Your task to perform on an android device: Open internet settings Image 0: 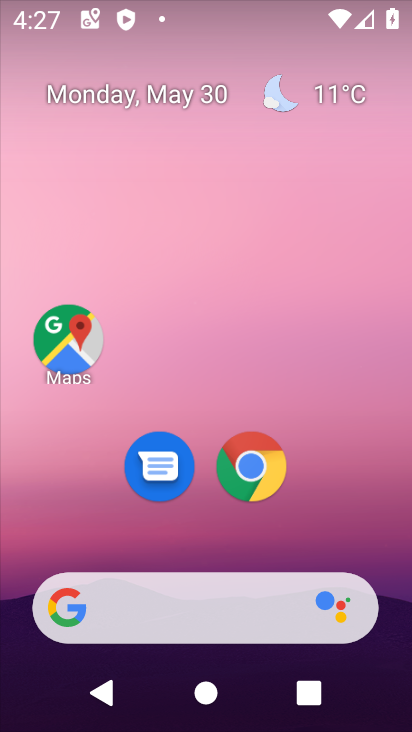
Step 0: drag from (336, 527) to (319, 71)
Your task to perform on an android device: Open internet settings Image 1: 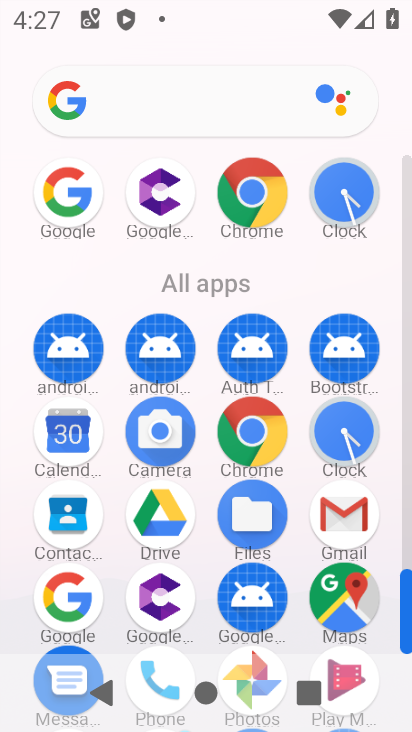
Step 1: drag from (305, 574) to (347, 179)
Your task to perform on an android device: Open internet settings Image 2: 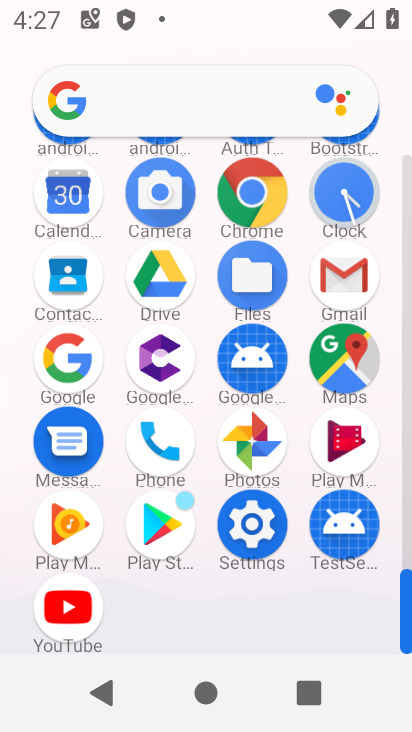
Step 2: click (258, 531)
Your task to perform on an android device: Open internet settings Image 3: 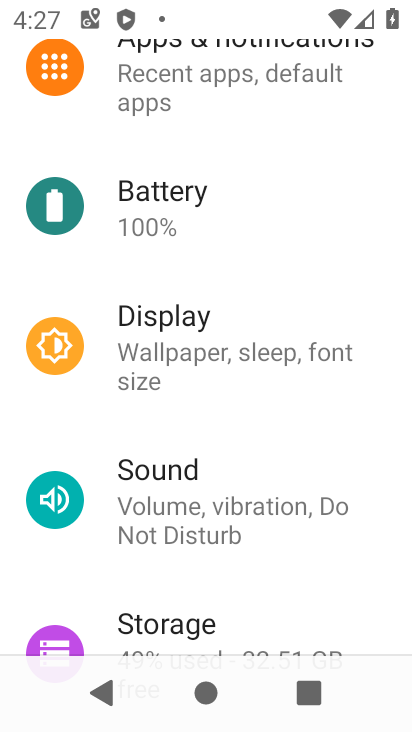
Step 3: drag from (188, 242) to (183, 646)
Your task to perform on an android device: Open internet settings Image 4: 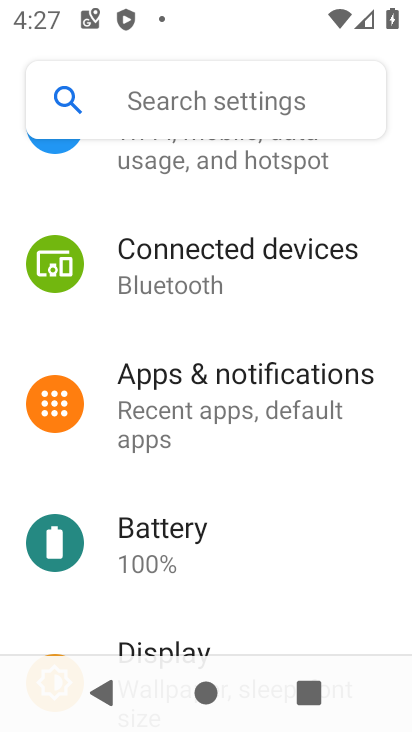
Step 4: drag from (121, 203) to (343, 658)
Your task to perform on an android device: Open internet settings Image 5: 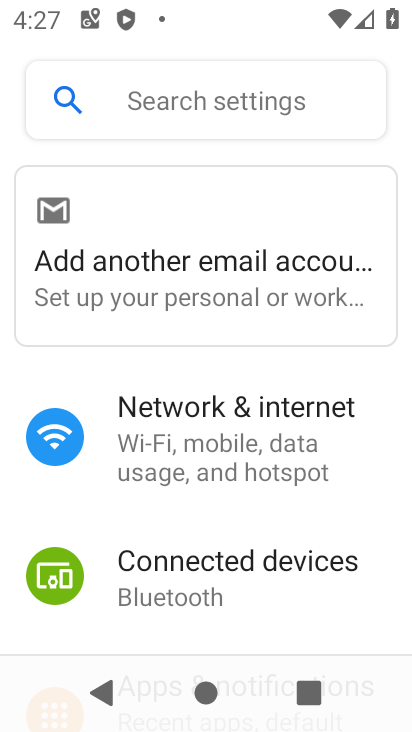
Step 5: click (233, 441)
Your task to perform on an android device: Open internet settings Image 6: 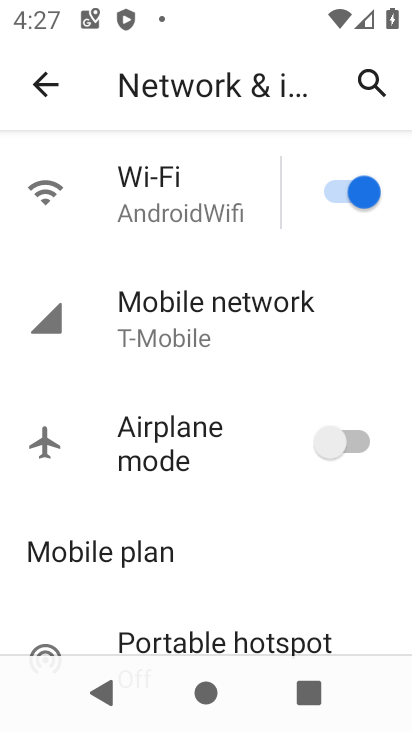
Step 6: drag from (236, 497) to (267, 177)
Your task to perform on an android device: Open internet settings Image 7: 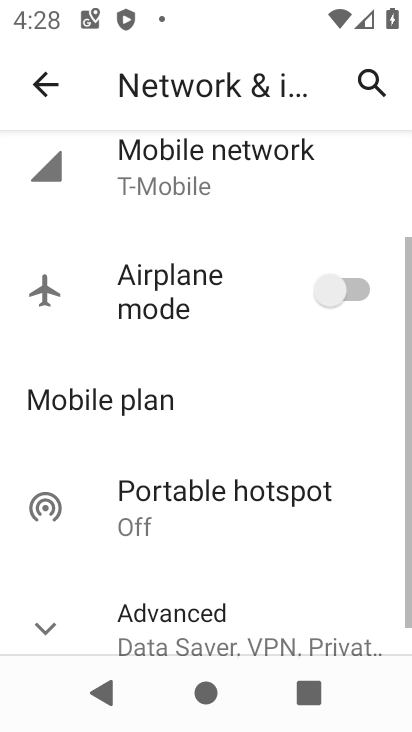
Step 7: drag from (194, 484) to (291, 135)
Your task to perform on an android device: Open internet settings Image 8: 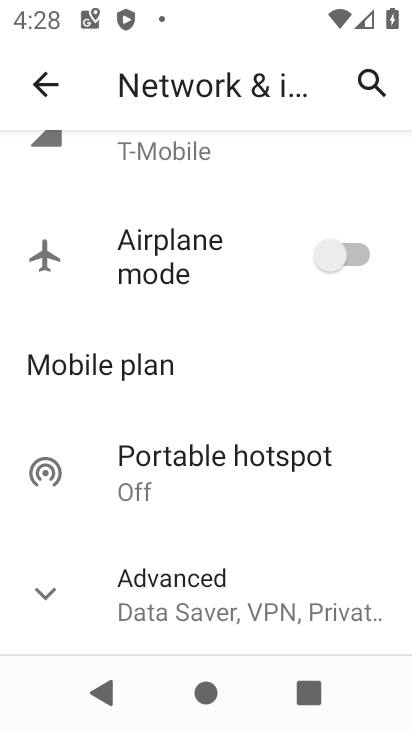
Step 8: click (175, 576)
Your task to perform on an android device: Open internet settings Image 9: 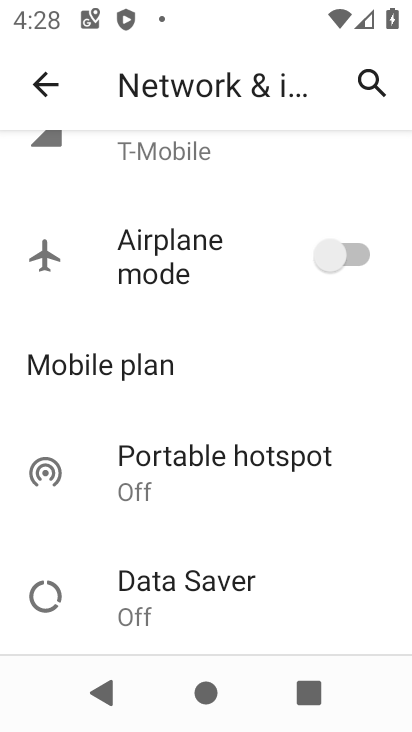
Step 9: task complete